Your task to perform on an android device: Go to Yahoo.com Image 0: 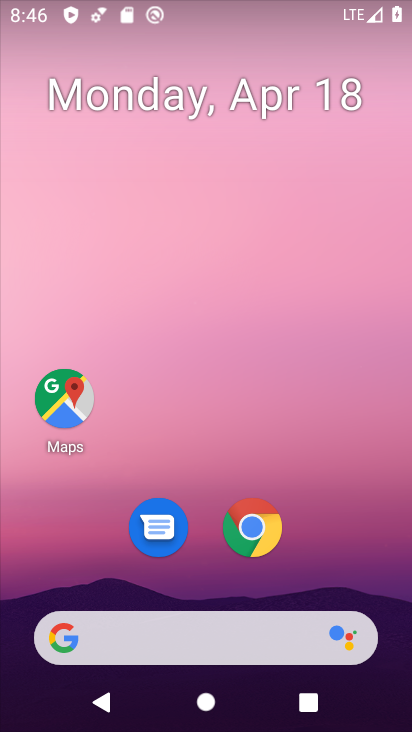
Step 0: drag from (362, 519) to (294, 6)
Your task to perform on an android device: Go to Yahoo.com Image 1: 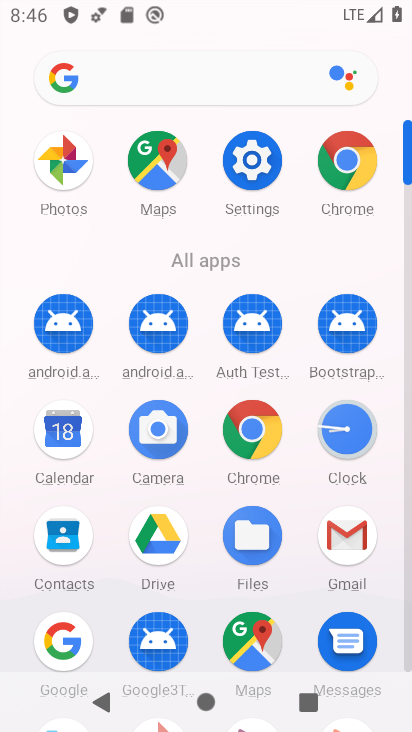
Step 1: click (351, 156)
Your task to perform on an android device: Go to Yahoo.com Image 2: 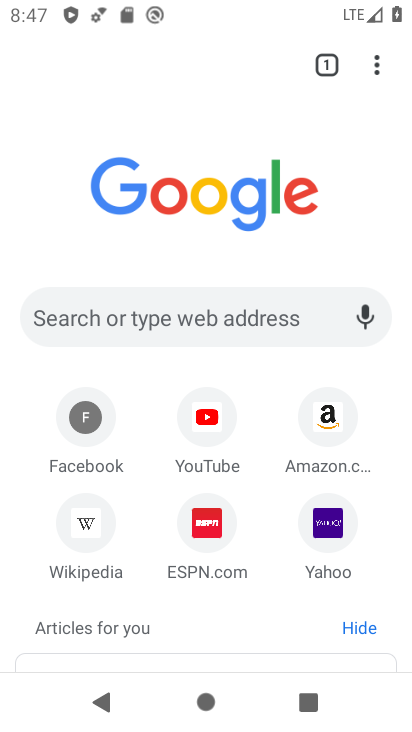
Step 2: click (222, 289)
Your task to perform on an android device: Go to Yahoo.com Image 3: 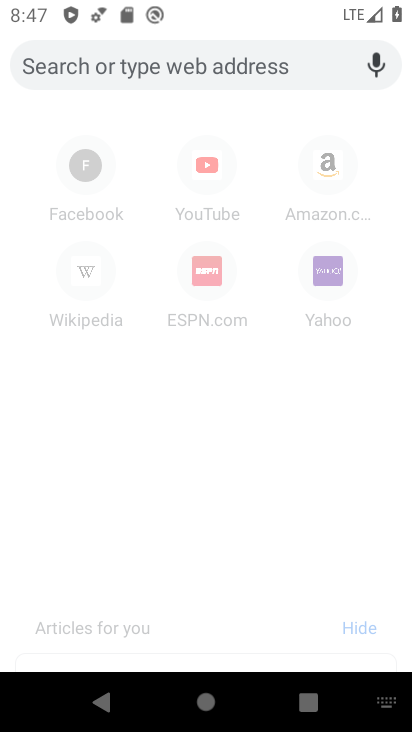
Step 3: type "Yahoo.com"
Your task to perform on an android device: Go to Yahoo.com Image 4: 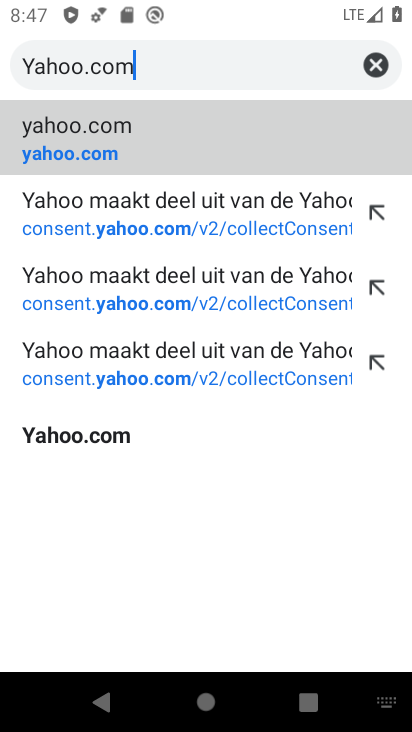
Step 4: type ""
Your task to perform on an android device: Go to Yahoo.com Image 5: 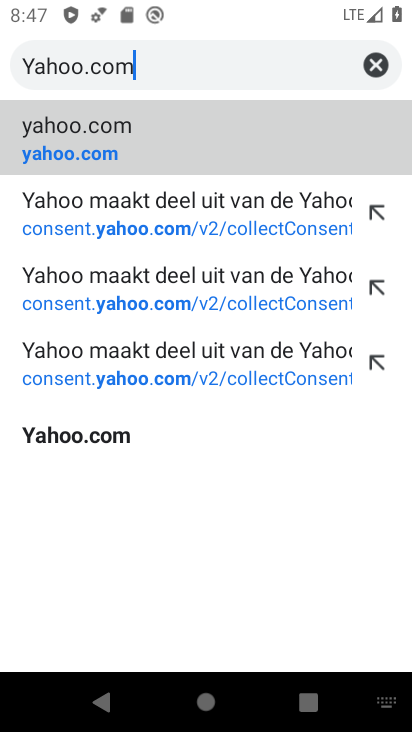
Step 5: click (166, 132)
Your task to perform on an android device: Go to Yahoo.com Image 6: 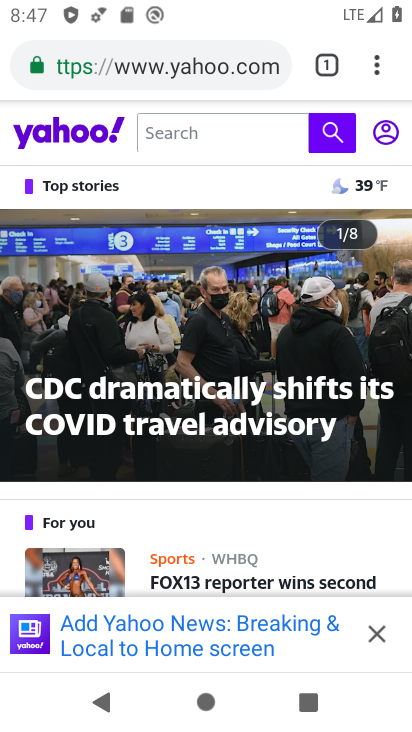
Step 6: task complete